Your task to perform on an android device: Open the calendar app, open the side menu, and click the "Day" option Image 0: 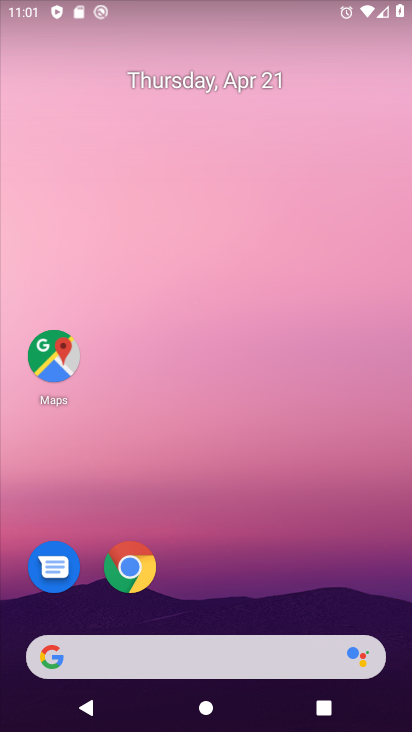
Step 0: drag from (226, 586) to (341, 65)
Your task to perform on an android device: Open the calendar app, open the side menu, and click the "Day" option Image 1: 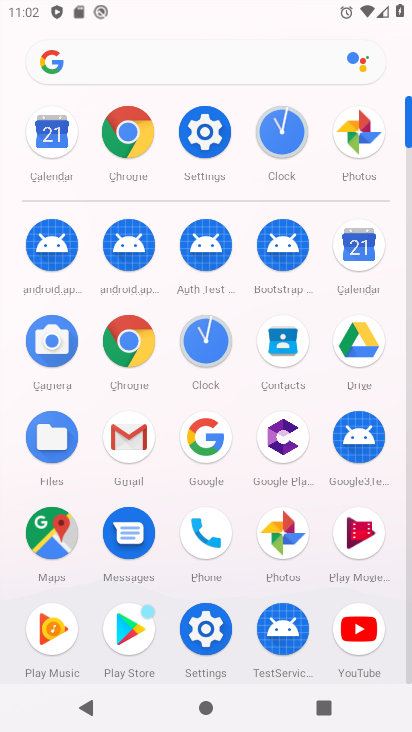
Step 1: click (358, 251)
Your task to perform on an android device: Open the calendar app, open the side menu, and click the "Day" option Image 2: 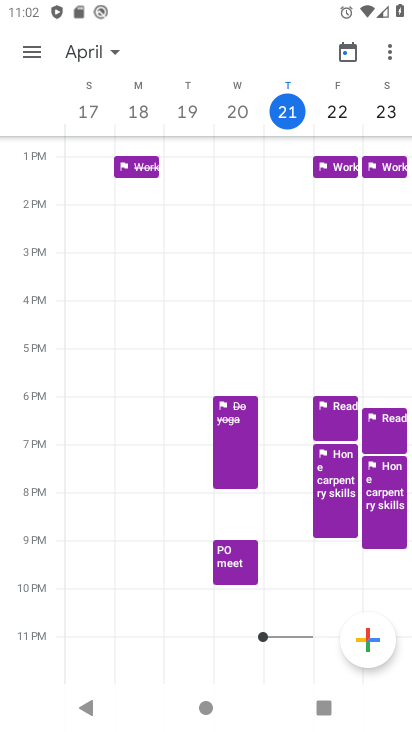
Step 2: click (32, 55)
Your task to perform on an android device: Open the calendar app, open the side menu, and click the "Day" option Image 3: 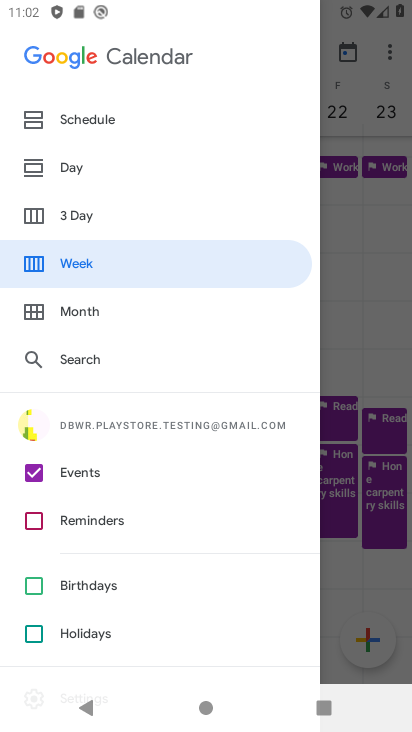
Step 3: click (76, 161)
Your task to perform on an android device: Open the calendar app, open the side menu, and click the "Day" option Image 4: 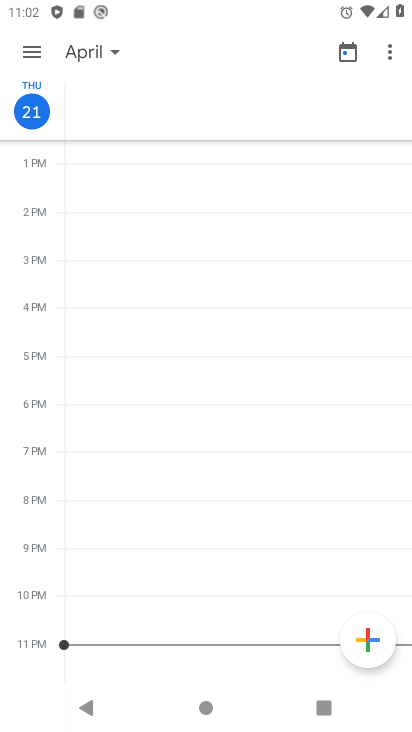
Step 4: task complete